Your task to perform on an android device: change keyboard looks Image 0: 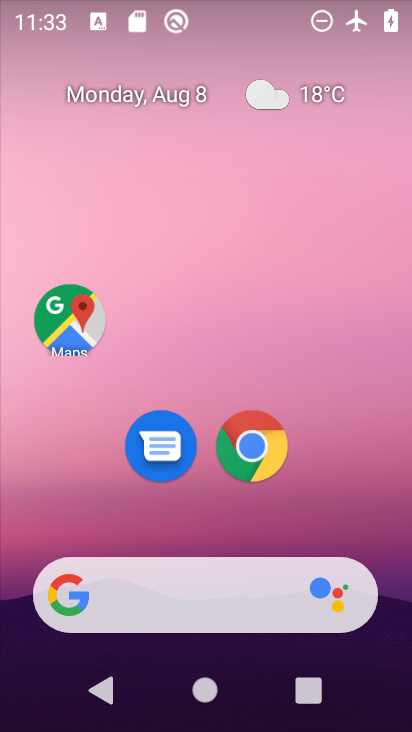
Step 0: drag from (400, 621) to (346, 132)
Your task to perform on an android device: change keyboard looks Image 1: 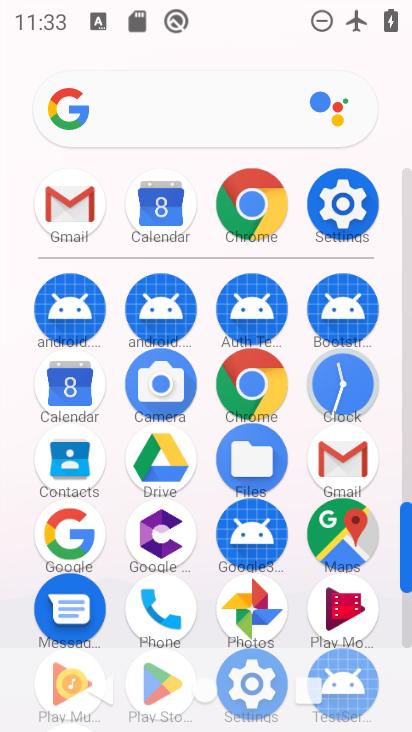
Step 1: click (408, 624)
Your task to perform on an android device: change keyboard looks Image 2: 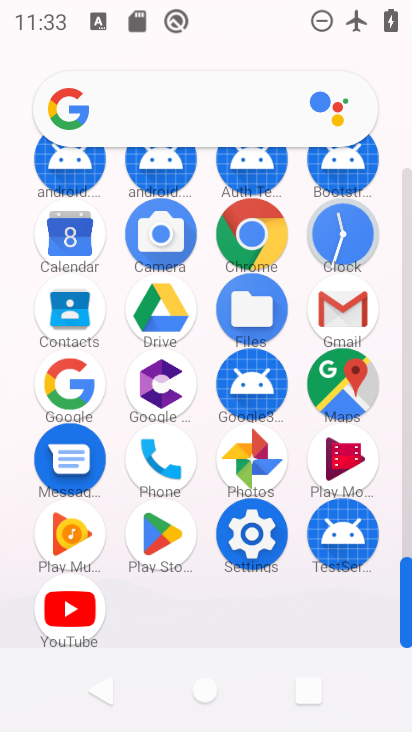
Step 2: click (251, 530)
Your task to perform on an android device: change keyboard looks Image 3: 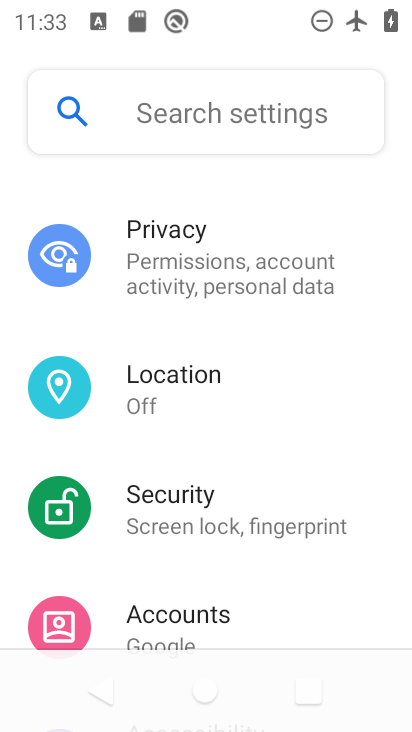
Step 3: drag from (340, 601) to (320, 193)
Your task to perform on an android device: change keyboard looks Image 4: 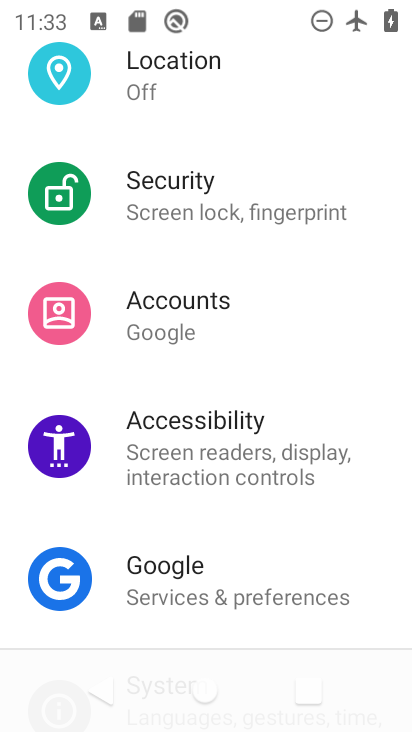
Step 4: drag from (341, 545) to (324, 143)
Your task to perform on an android device: change keyboard looks Image 5: 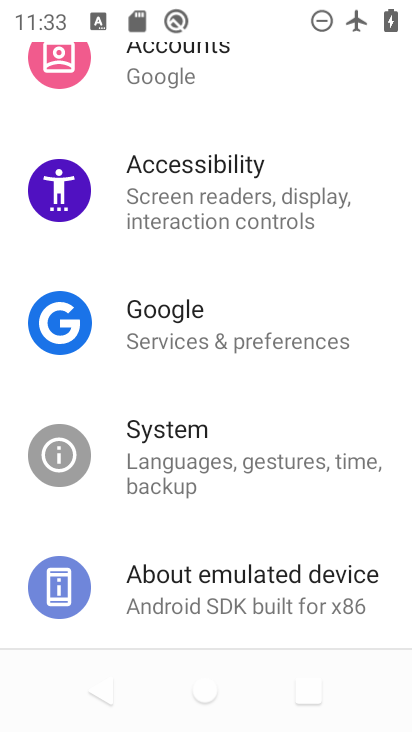
Step 5: click (188, 456)
Your task to perform on an android device: change keyboard looks Image 6: 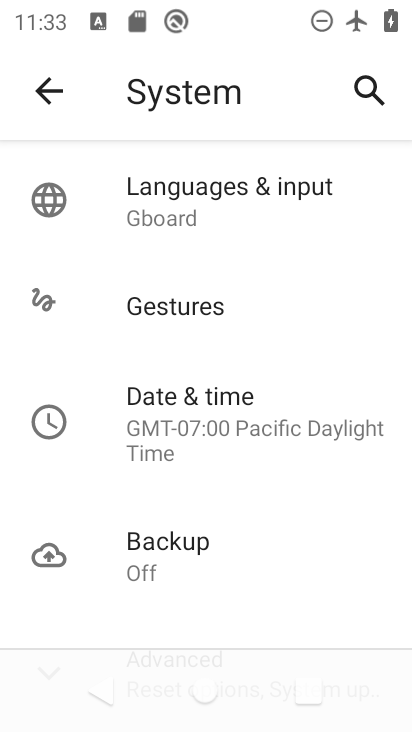
Step 6: click (170, 181)
Your task to perform on an android device: change keyboard looks Image 7: 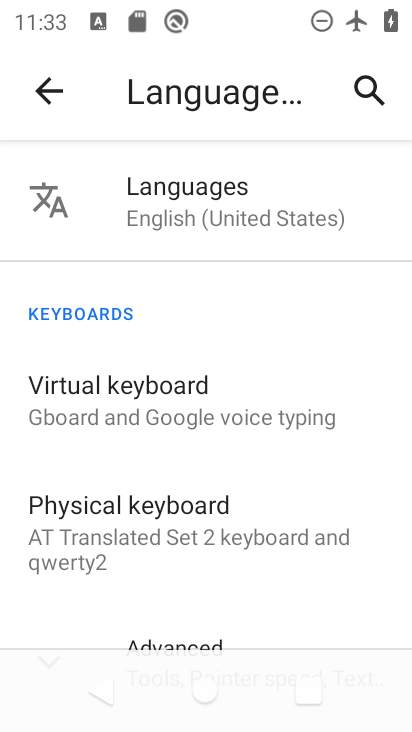
Step 7: click (162, 533)
Your task to perform on an android device: change keyboard looks Image 8: 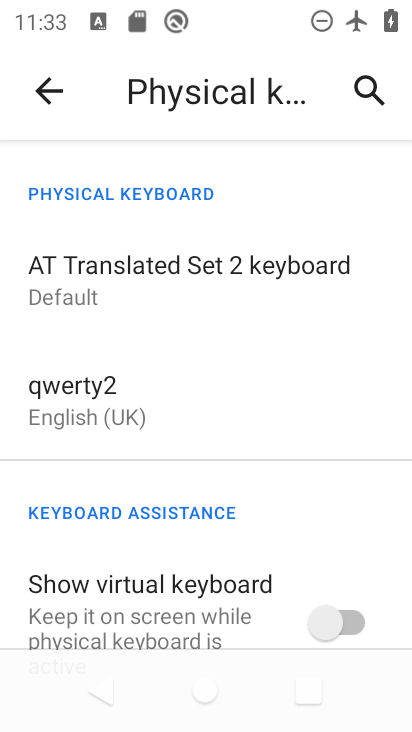
Step 8: click (92, 273)
Your task to perform on an android device: change keyboard looks Image 9: 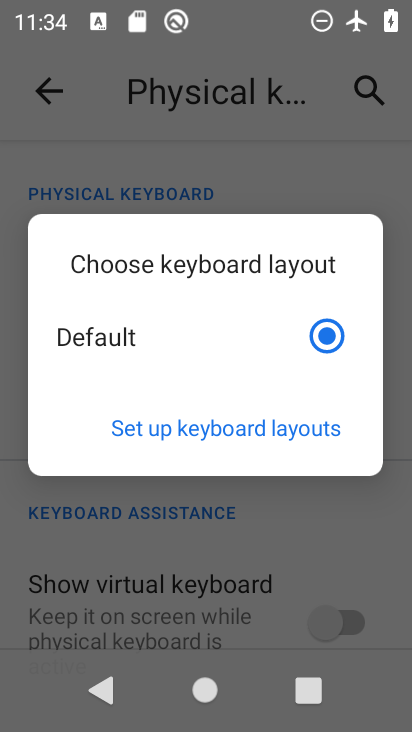
Step 9: click (243, 422)
Your task to perform on an android device: change keyboard looks Image 10: 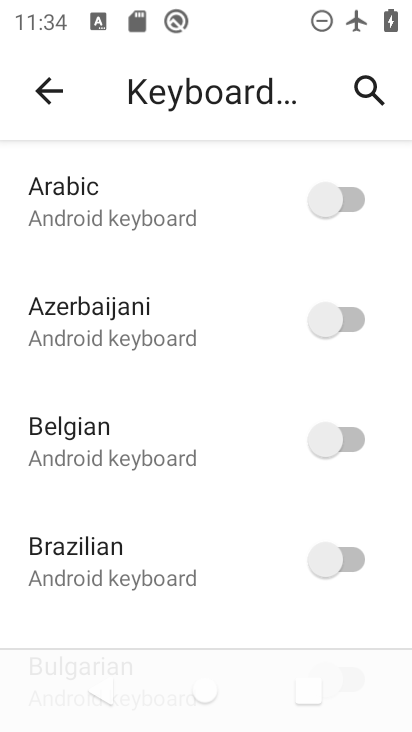
Step 10: drag from (291, 560) to (271, 205)
Your task to perform on an android device: change keyboard looks Image 11: 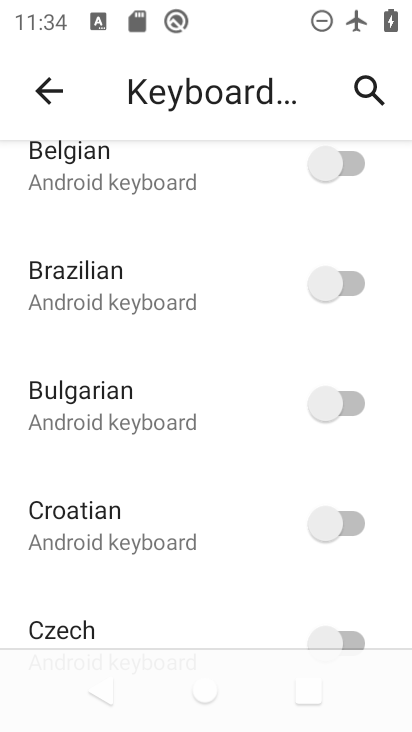
Step 11: click (359, 520)
Your task to perform on an android device: change keyboard looks Image 12: 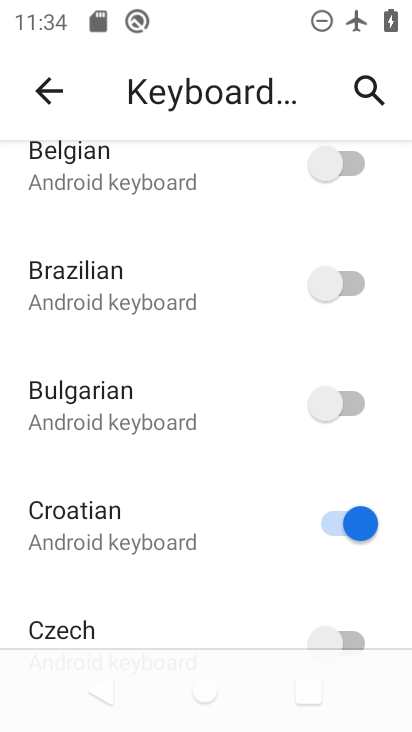
Step 12: task complete